Your task to perform on an android device: toggle sleep mode Image 0: 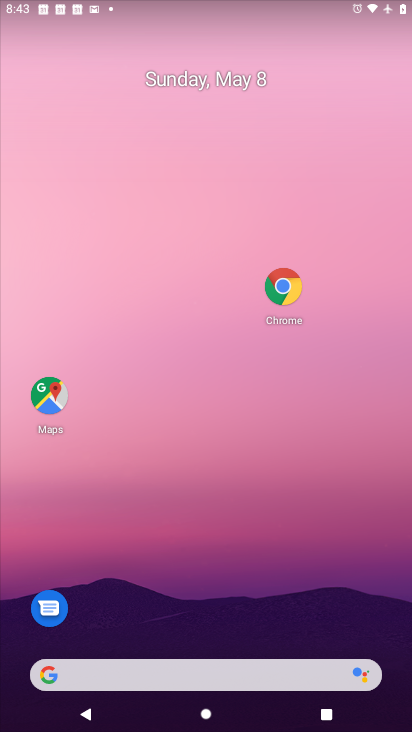
Step 0: drag from (182, 671) to (245, 141)
Your task to perform on an android device: toggle sleep mode Image 1: 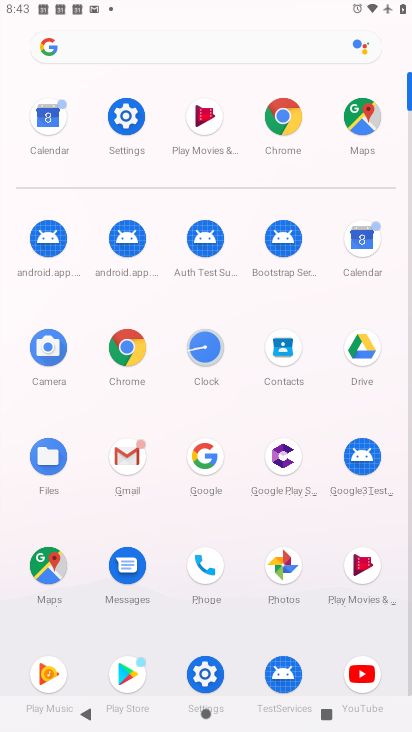
Step 1: click (132, 118)
Your task to perform on an android device: toggle sleep mode Image 2: 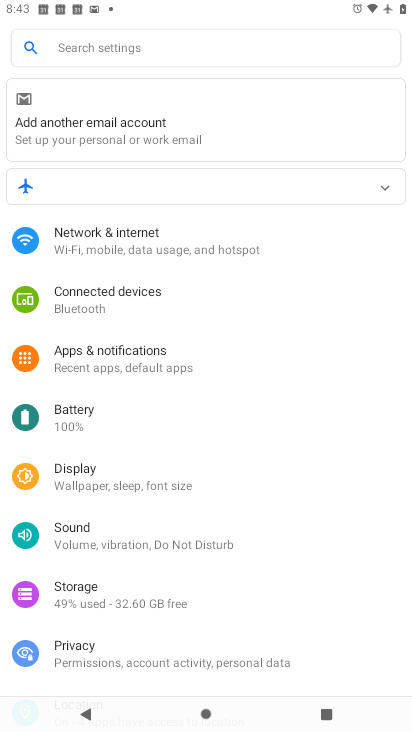
Step 2: click (70, 474)
Your task to perform on an android device: toggle sleep mode Image 3: 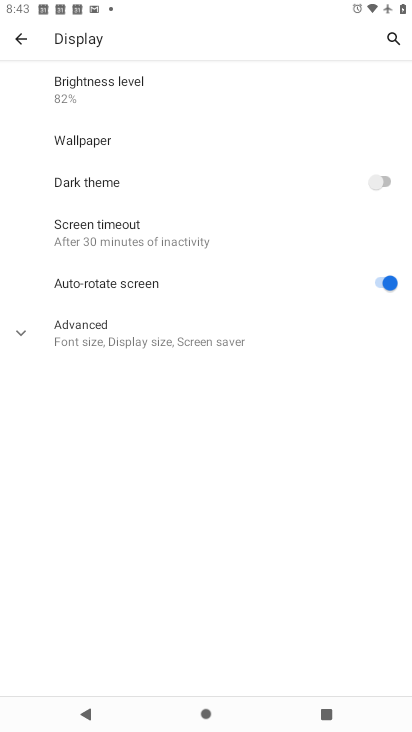
Step 3: task complete